Your task to perform on an android device: install app "File Manager" Image 0: 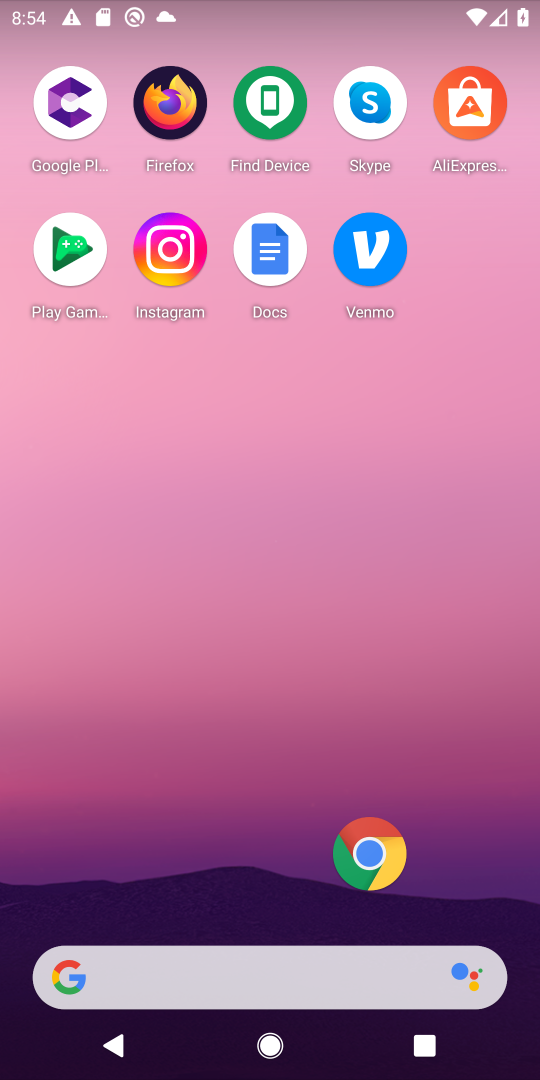
Step 0: drag from (231, 857) to (342, 114)
Your task to perform on an android device: install app "File Manager" Image 1: 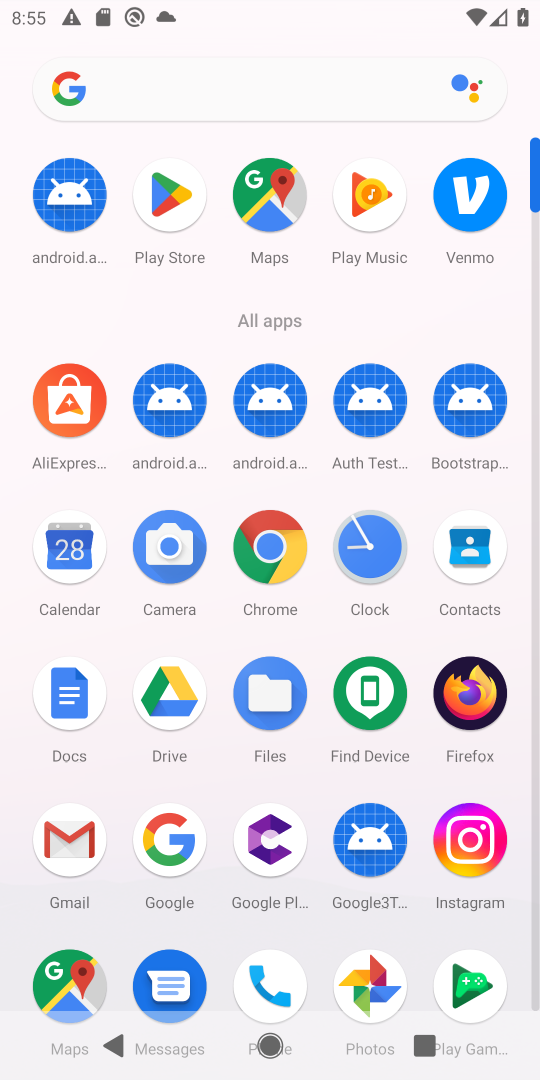
Step 1: click (169, 210)
Your task to perform on an android device: install app "File Manager" Image 2: 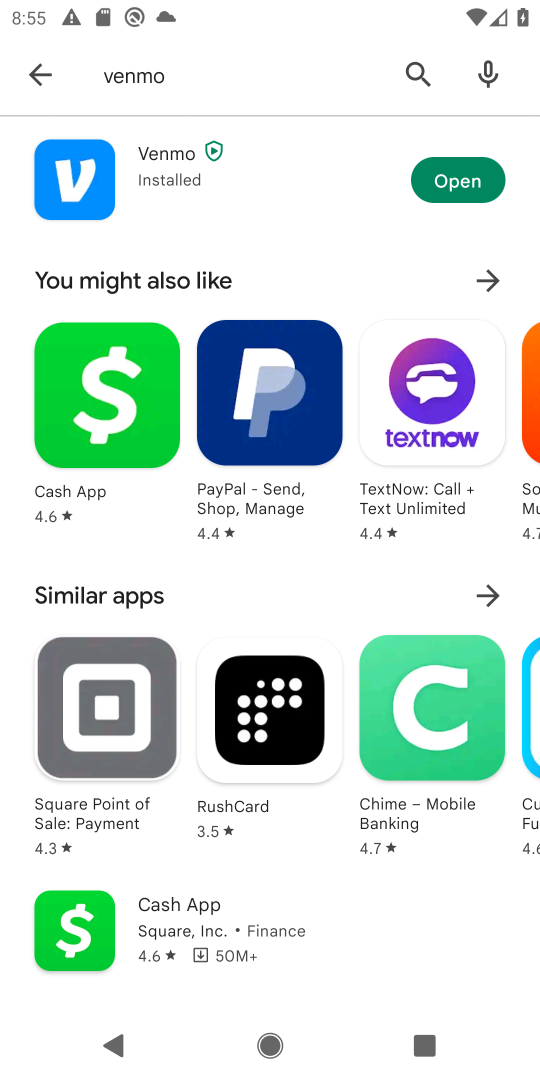
Step 2: click (41, 82)
Your task to perform on an android device: install app "File Manager" Image 3: 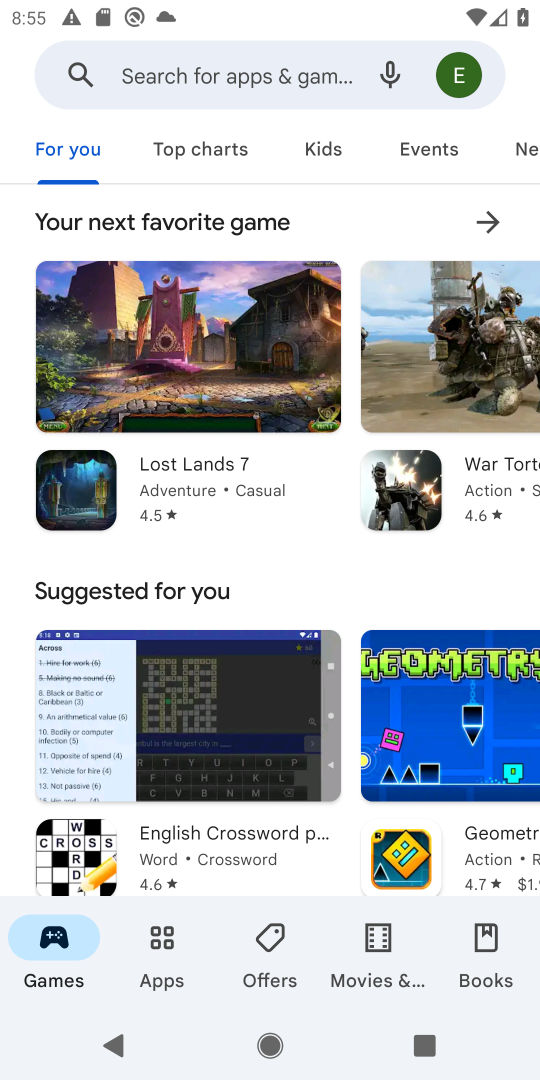
Step 3: click (291, 58)
Your task to perform on an android device: install app "File Manager" Image 4: 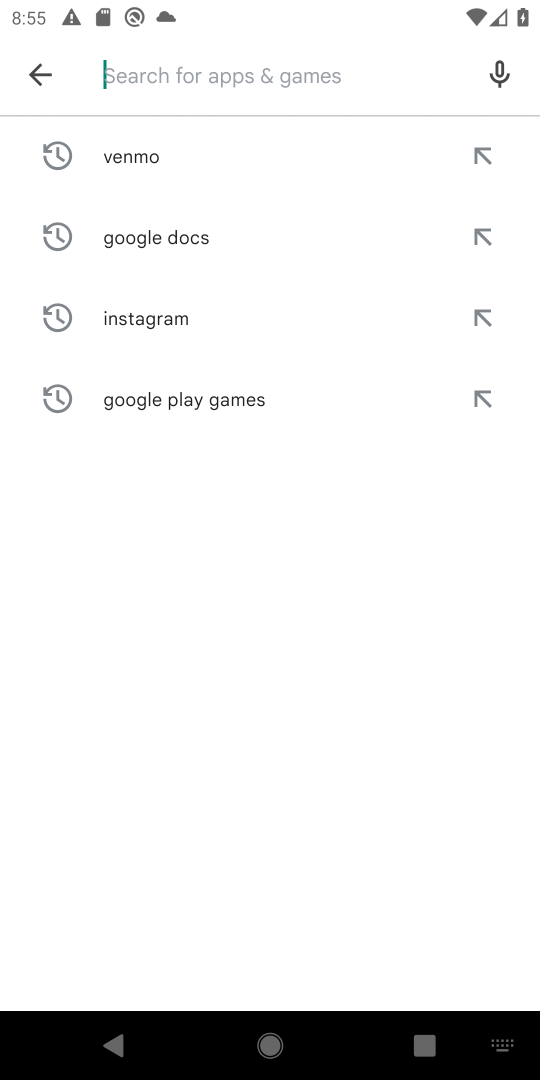
Step 4: type "File Manager"
Your task to perform on an android device: install app "File Manager" Image 5: 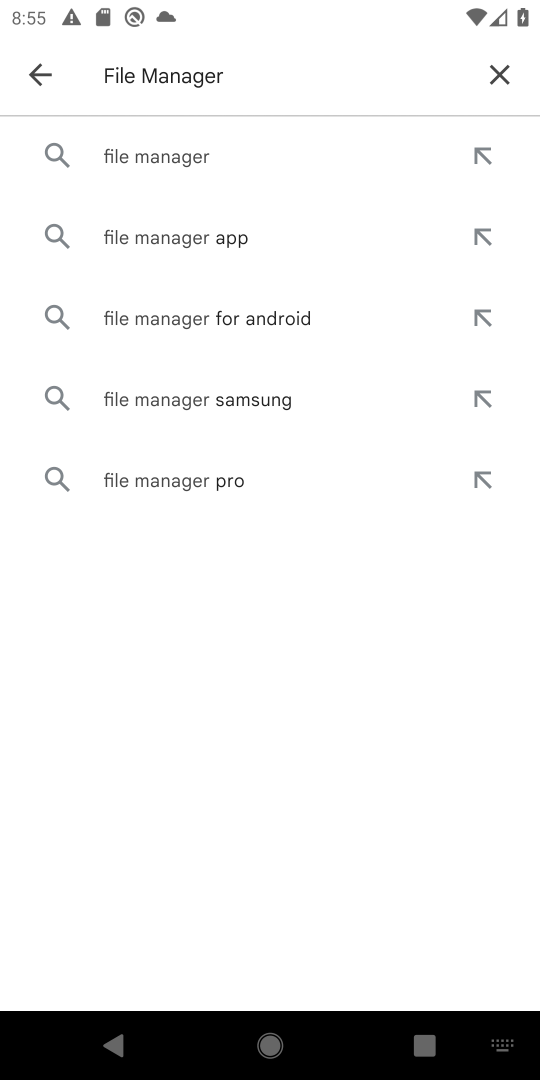
Step 5: click (144, 160)
Your task to perform on an android device: install app "File Manager" Image 6: 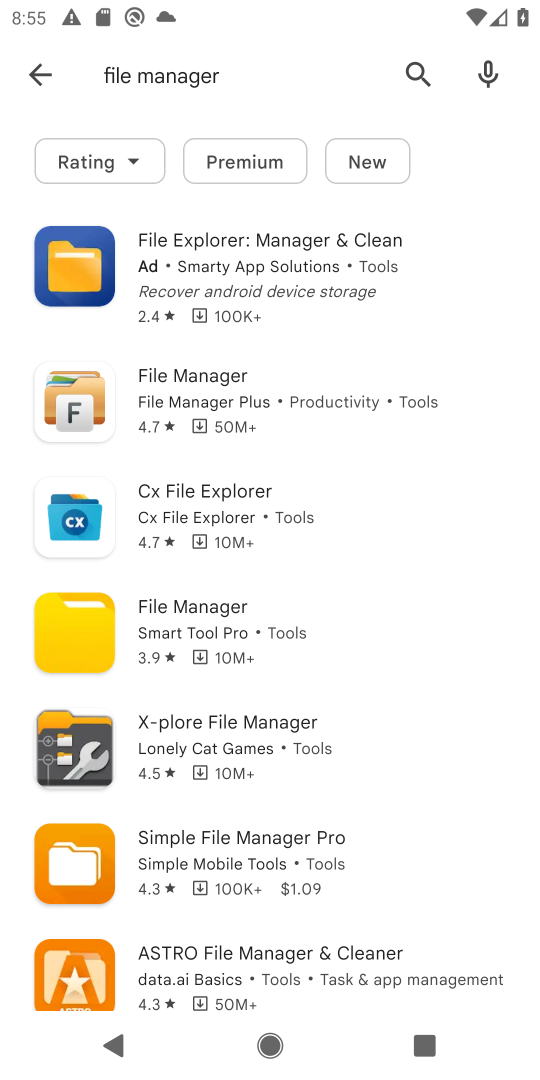
Step 6: click (305, 653)
Your task to perform on an android device: install app "File Manager" Image 7: 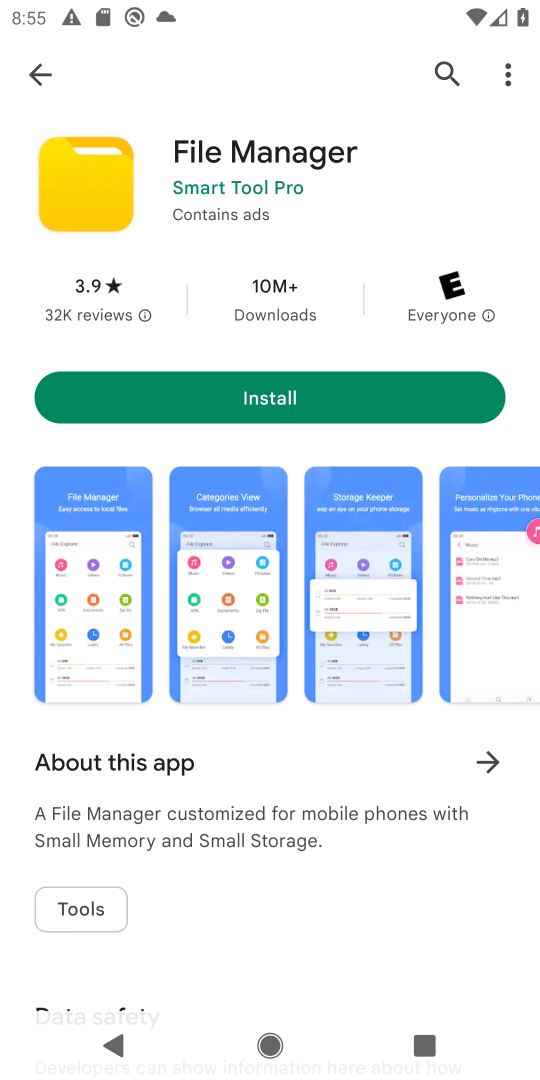
Step 7: click (283, 384)
Your task to perform on an android device: install app "File Manager" Image 8: 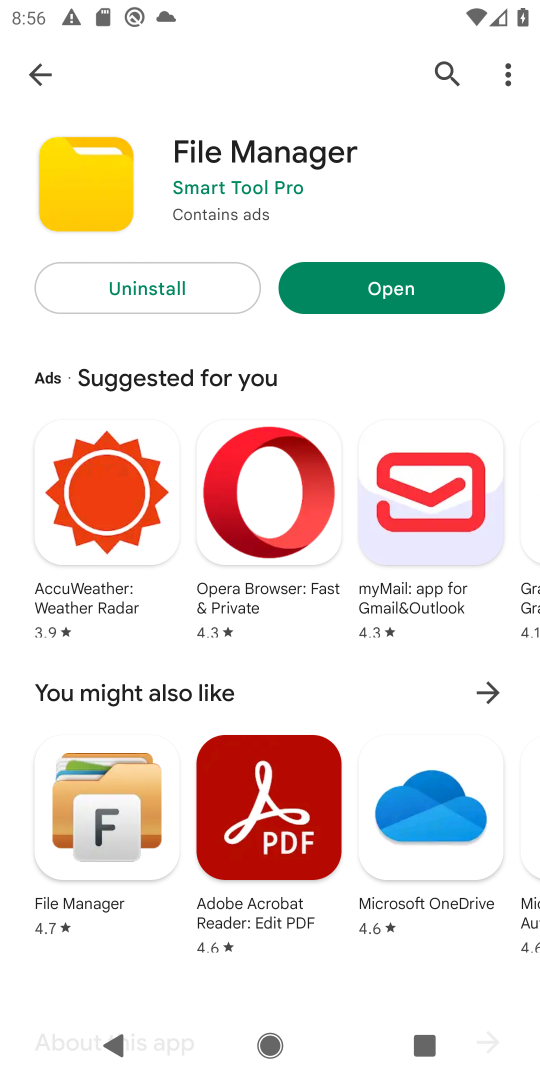
Step 8: click (372, 266)
Your task to perform on an android device: install app "File Manager" Image 9: 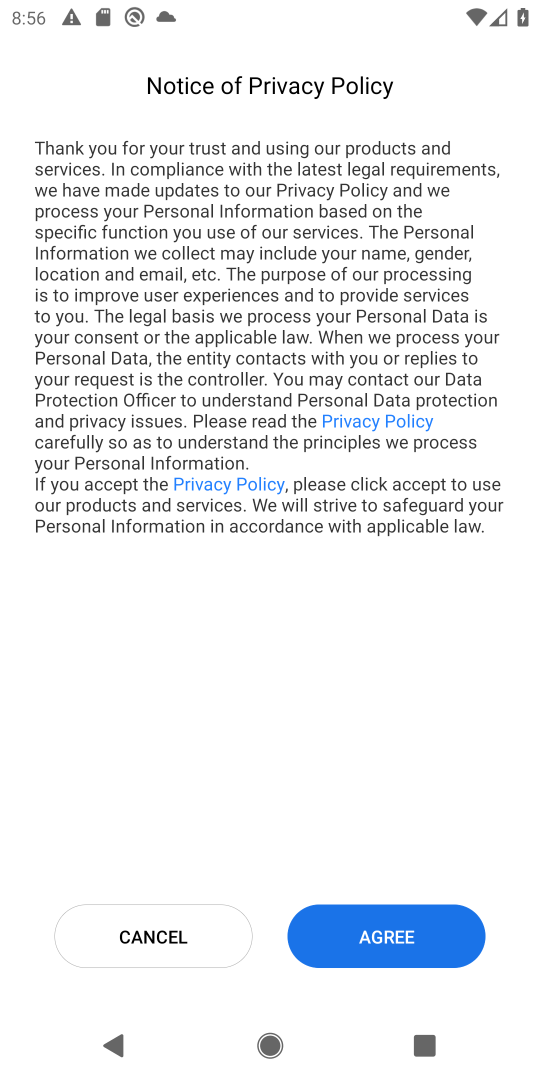
Step 9: click (395, 954)
Your task to perform on an android device: install app "File Manager" Image 10: 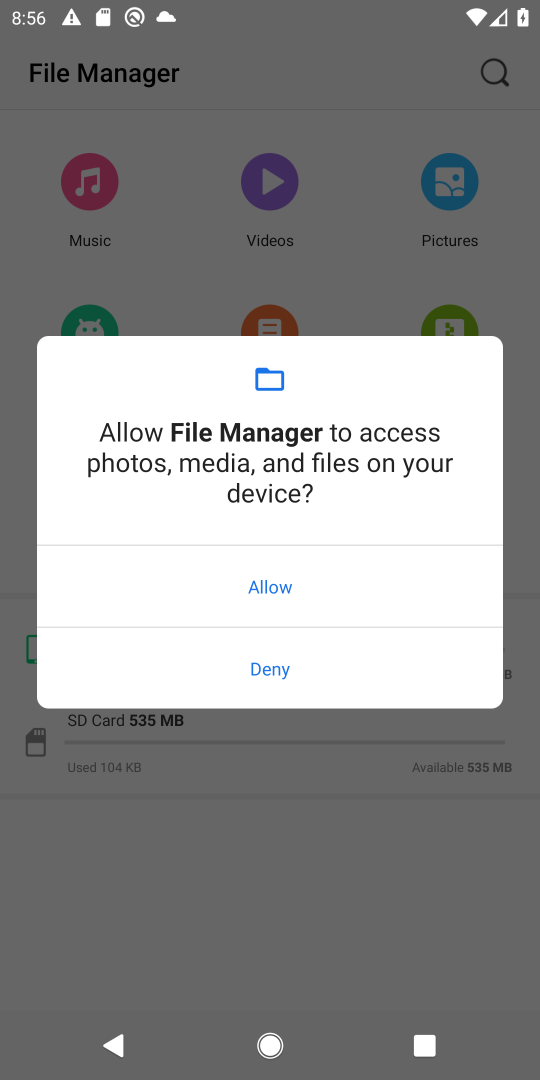
Step 10: click (399, 577)
Your task to perform on an android device: install app "File Manager" Image 11: 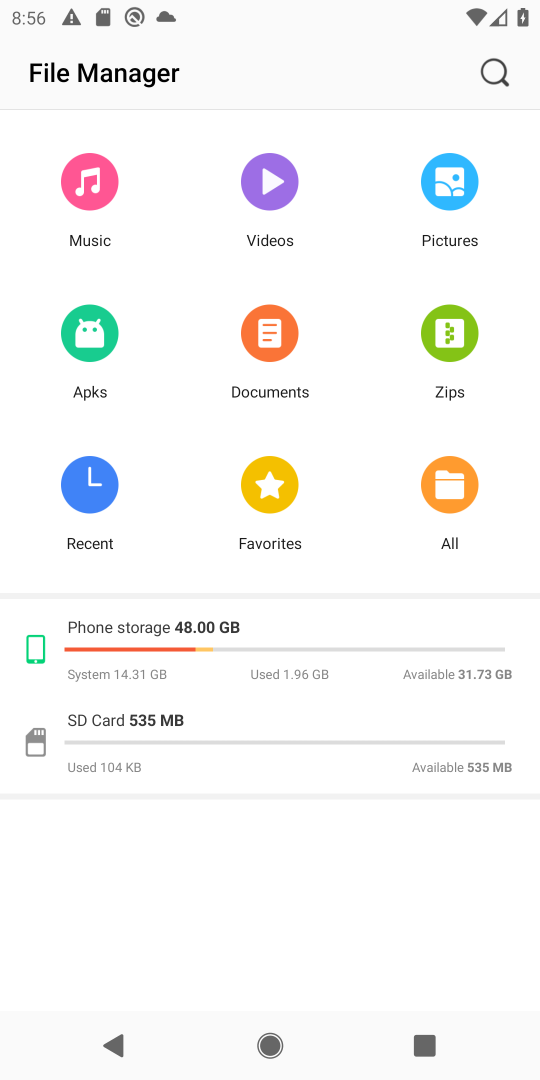
Step 11: task complete